Your task to perform on an android device: What's the price of the Sony TV? Image 0: 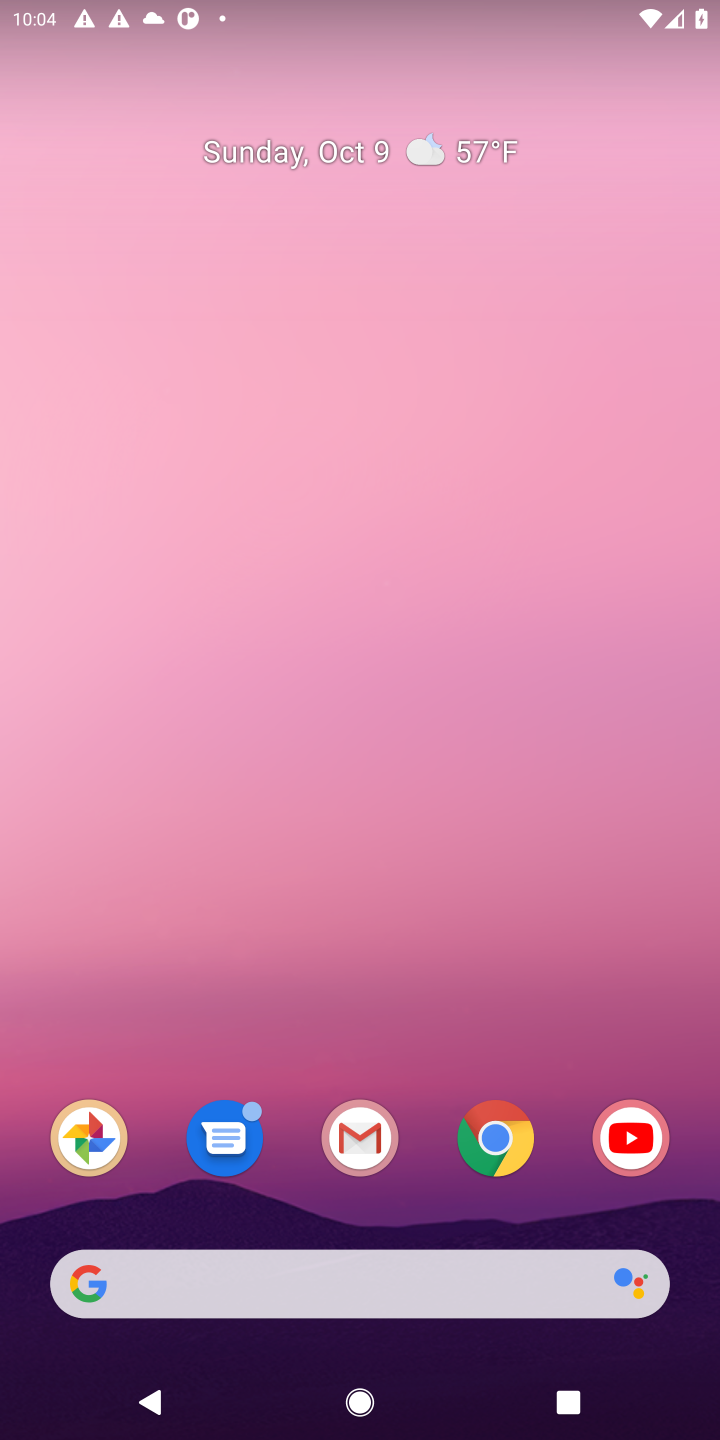
Step 0: click (494, 1145)
Your task to perform on an android device: What's the price of the Sony TV? Image 1: 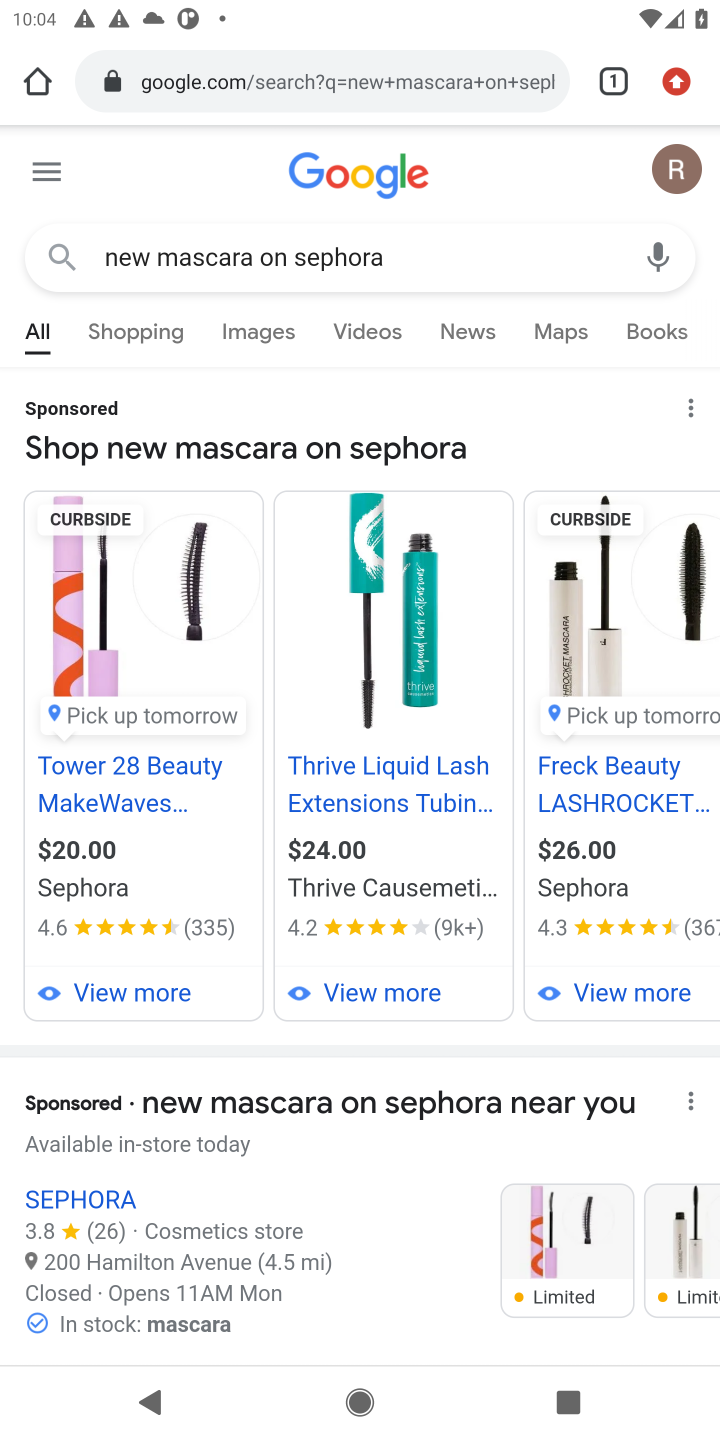
Step 1: click (466, 89)
Your task to perform on an android device: What's the price of the Sony TV? Image 2: 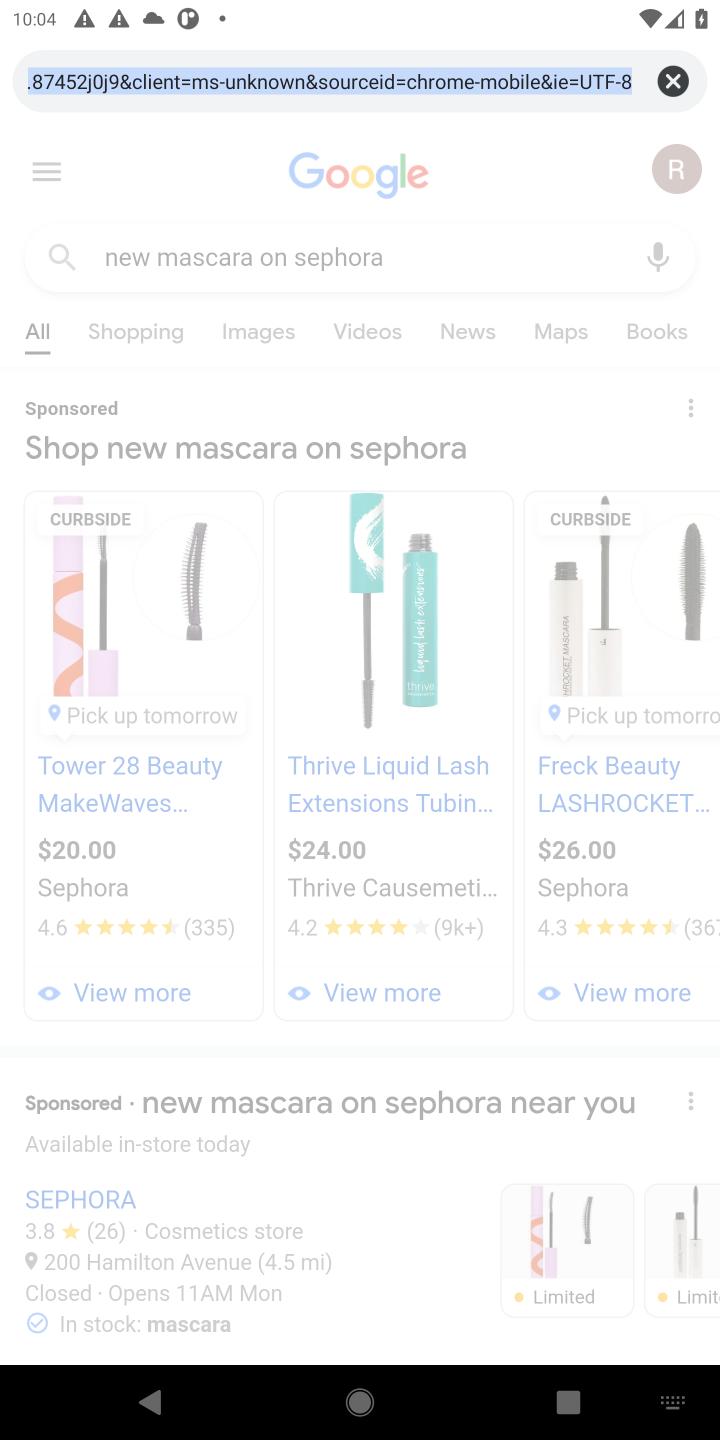
Step 2: click (672, 82)
Your task to perform on an android device: What's the price of the Sony TV? Image 3: 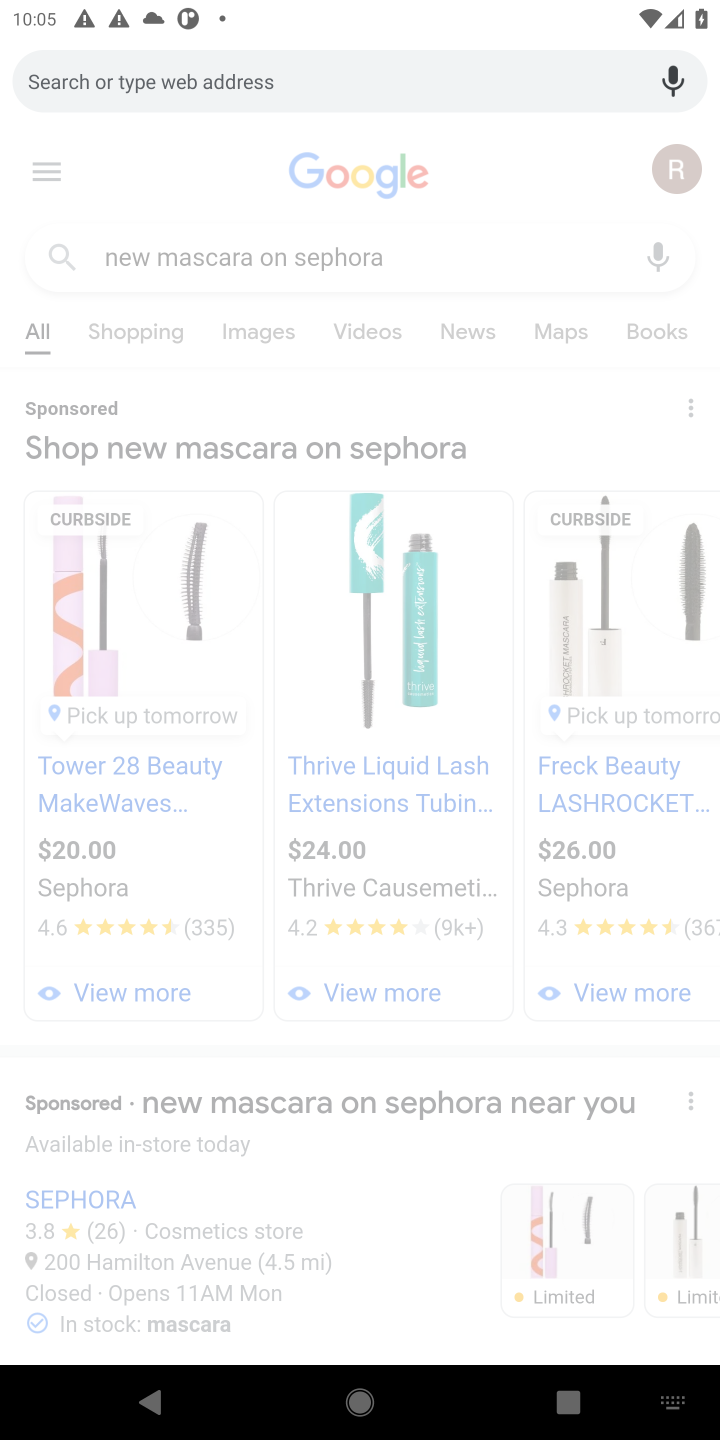
Step 3: type "whats the price of the sony tv?"
Your task to perform on an android device: What's the price of the Sony TV? Image 4: 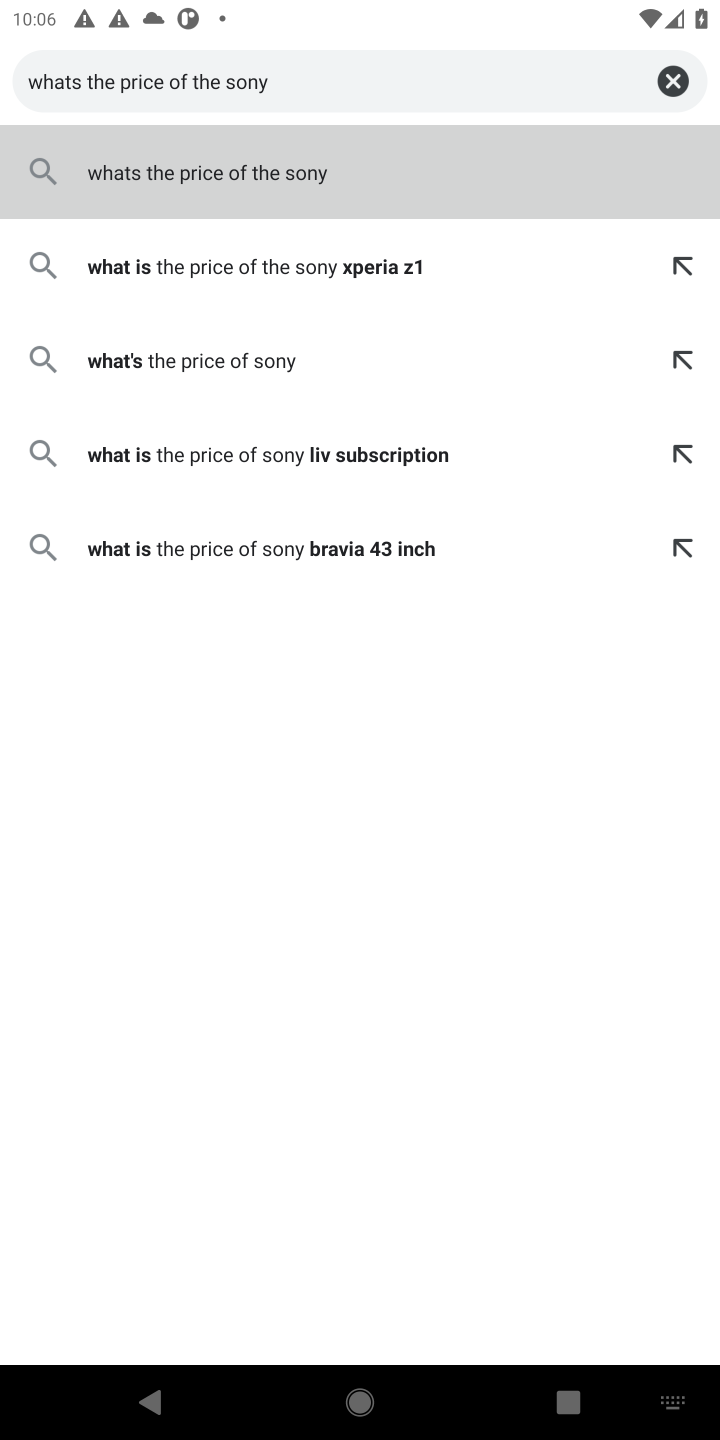
Step 4: click (282, 184)
Your task to perform on an android device: What's the price of the Sony TV? Image 5: 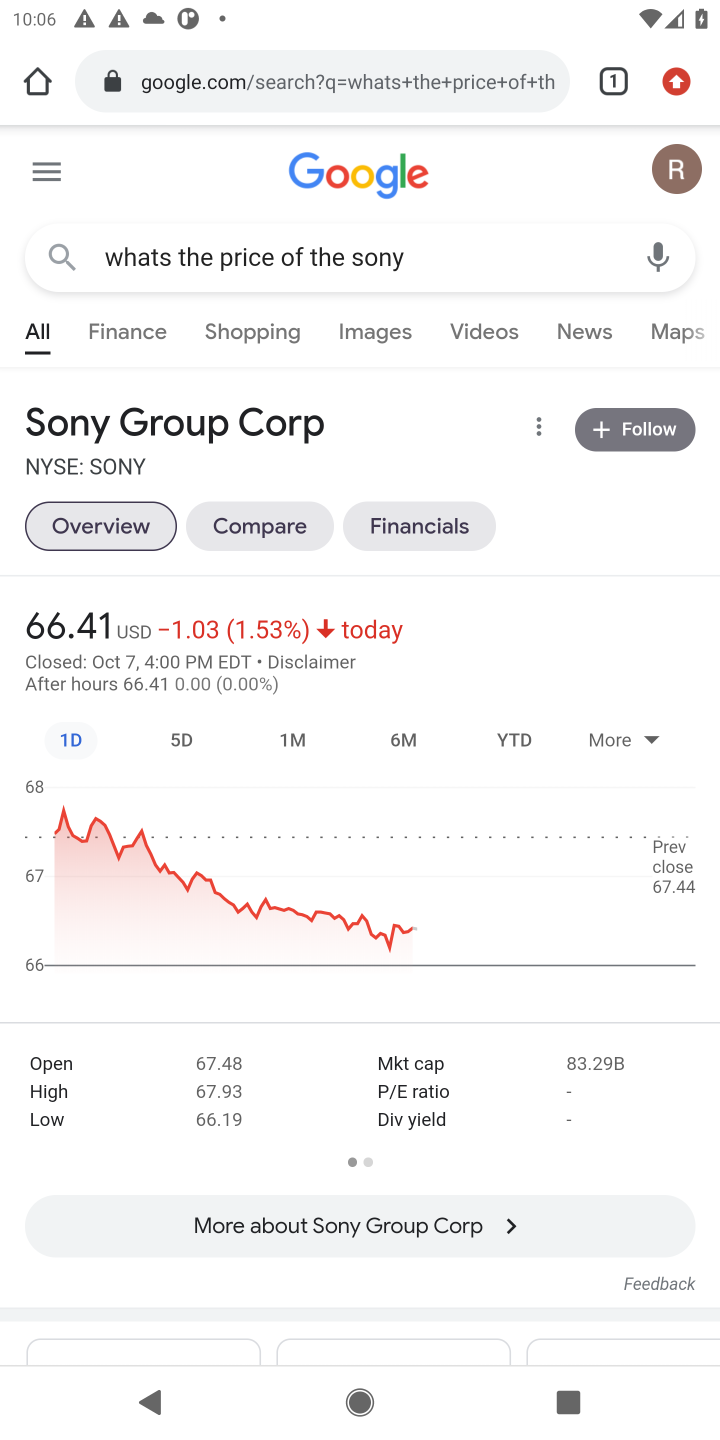
Step 5: task complete